Your task to perform on an android device: open chrome and create a bookmark for the current page Image 0: 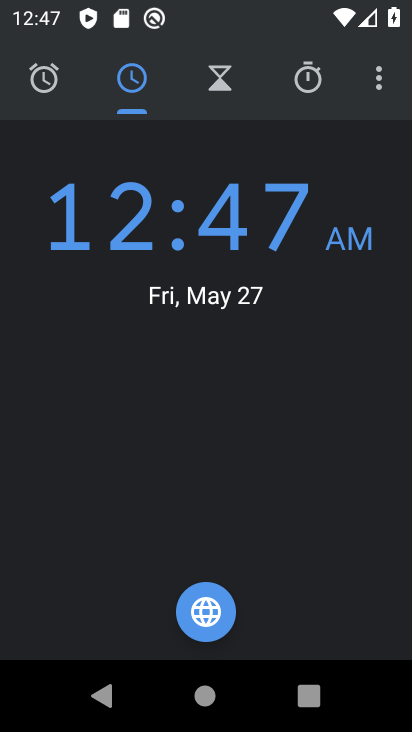
Step 0: press home button
Your task to perform on an android device: open chrome and create a bookmark for the current page Image 1: 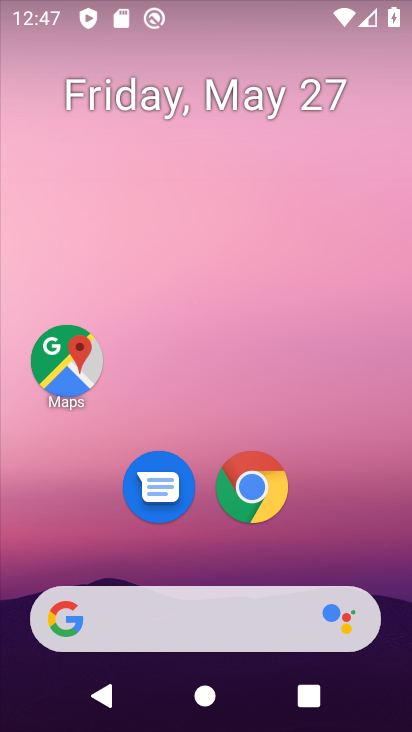
Step 1: click (236, 500)
Your task to perform on an android device: open chrome and create a bookmark for the current page Image 2: 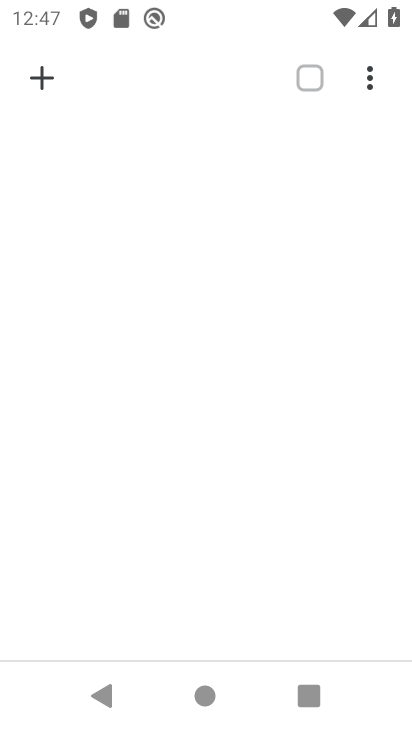
Step 2: click (44, 78)
Your task to perform on an android device: open chrome and create a bookmark for the current page Image 3: 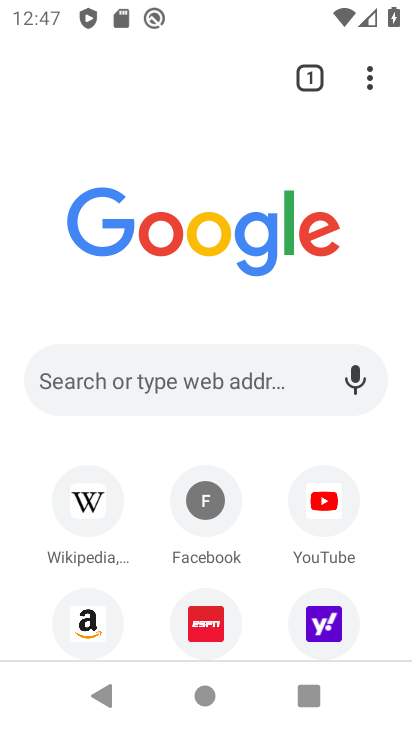
Step 3: click (369, 75)
Your task to perform on an android device: open chrome and create a bookmark for the current page Image 4: 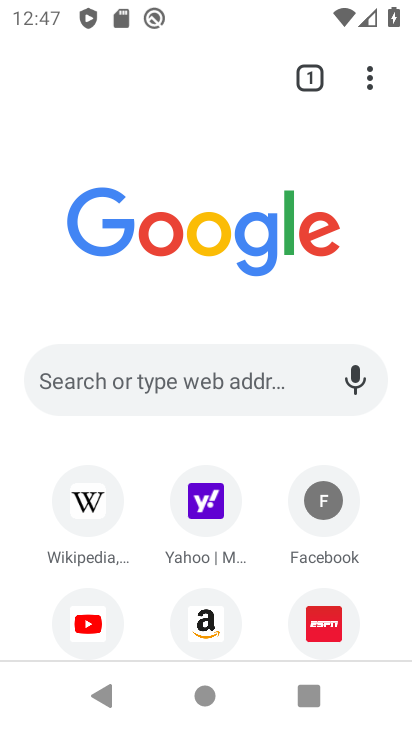
Step 4: click (371, 90)
Your task to perform on an android device: open chrome and create a bookmark for the current page Image 5: 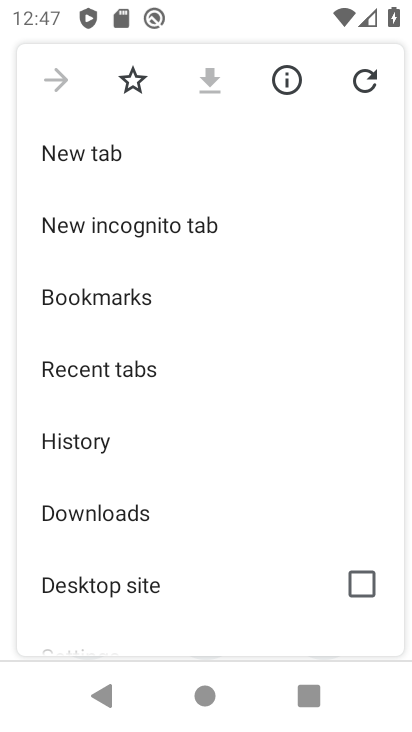
Step 5: click (128, 84)
Your task to perform on an android device: open chrome and create a bookmark for the current page Image 6: 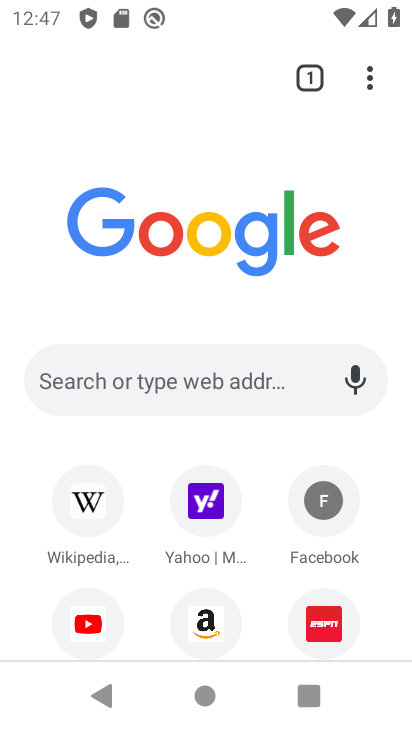
Step 6: task complete